Your task to perform on an android device: delete the emails in spam in the gmail app Image 0: 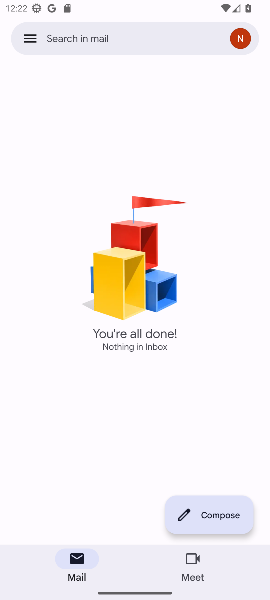
Step 0: click (28, 33)
Your task to perform on an android device: delete the emails in spam in the gmail app Image 1: 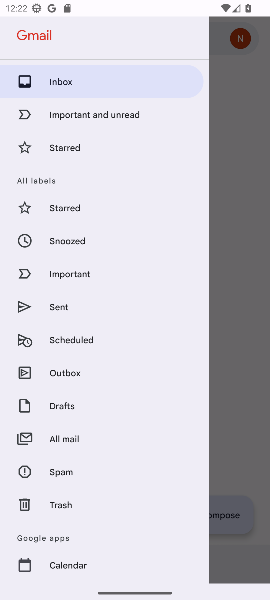
Step 1: drag from (113, 484) to (148, 135)
Your task to perform on an android device: delete the emails in spam in the gmail app Image 2: 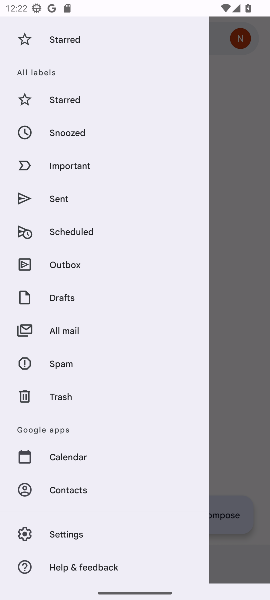
Step 2: click (52, 361)
Your task to perform on an android device: delete the emails in spam in the gmail app Image 3: 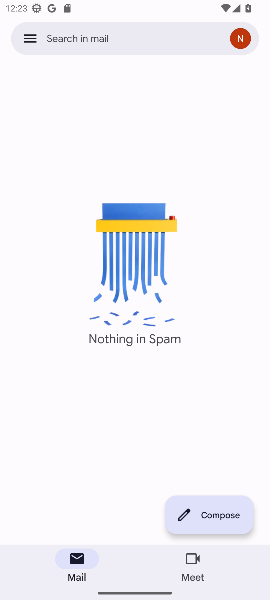
Step 3: task complete